Your task to perform on an android device: install app "Google Pay: Save, Pay, Manage" Image 0: 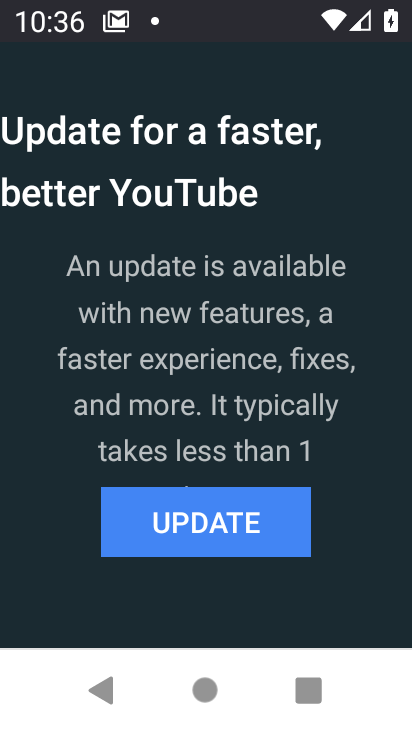
Step 0: press home button
Your task to perform on an android device: install app "Google Pay: Save, Pay, Manage" Image 1: 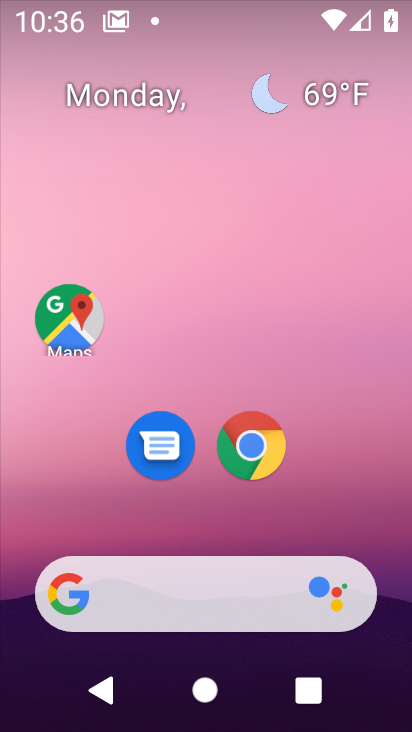
Step 1: drag from (182, 685) to (230, 143)
Your task to perform on an android device: install app "Google Pay: Save, Pay, Manage" Image 2: 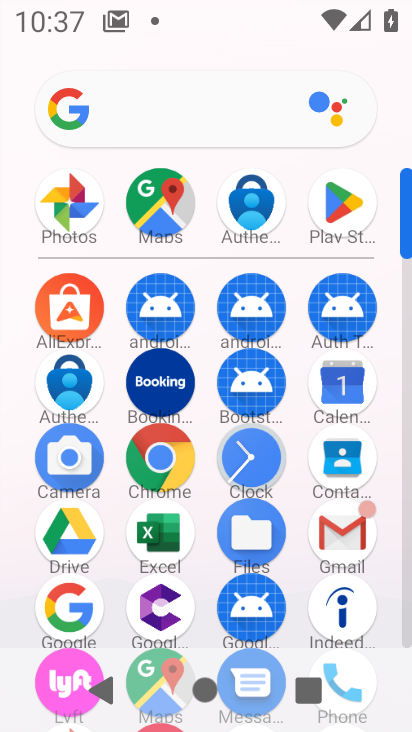
Step 2: click (364, 216)
Your task to perform on an android device: install app "Google Pay: Save, Pay, Manage" Image 3: 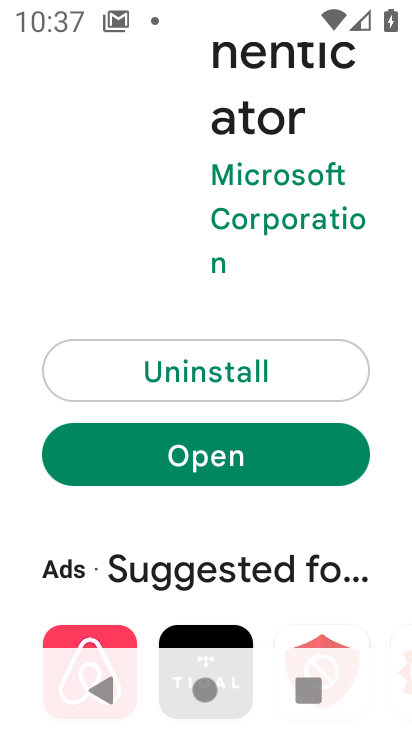
Step 3: drag from (203, 240) to (185, 667)
Your task to perform on an android device: install app "Google Pay: Save, Pay, Manage" Image 4: 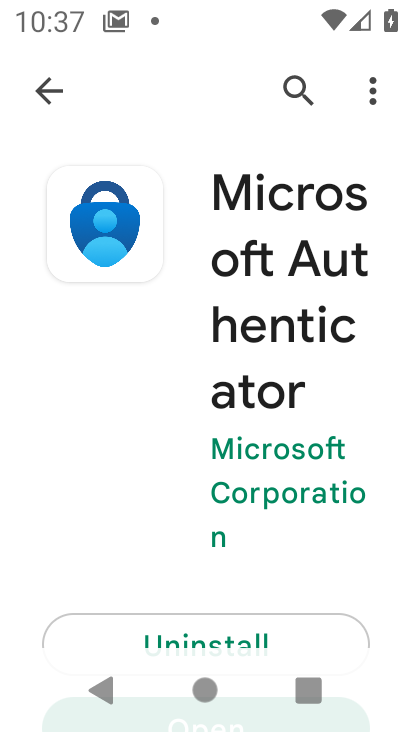
Step 4: click (54, 103)
Your task to perform on an android device: install app "Google Pay: Save, Pay, Manage" Image 5: 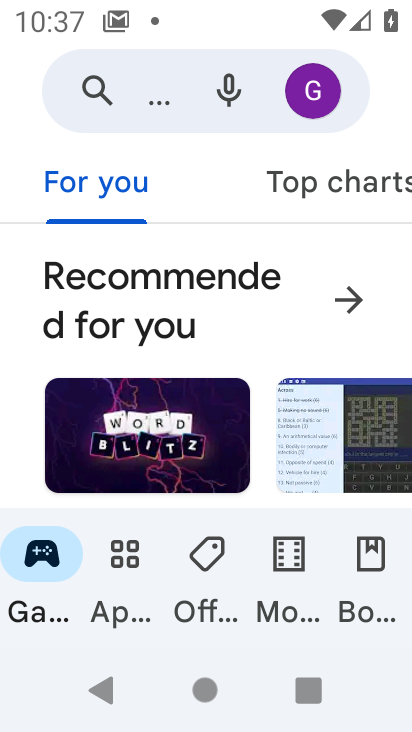
Step 5: click (92, 103)
Your task to perform on an android device: install app "Google Pay: Save, Pay, Manage" Image 6: 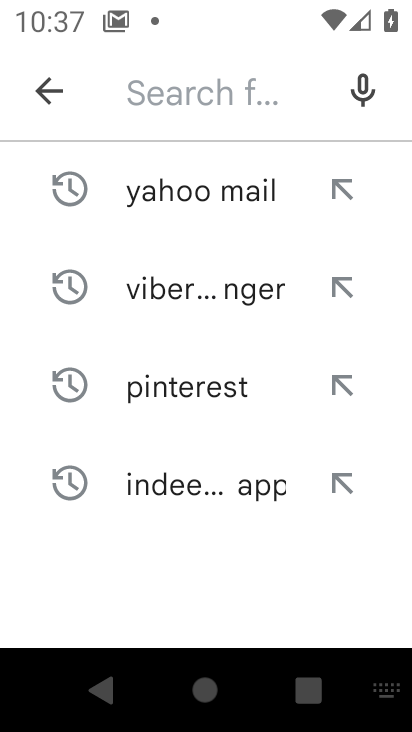
Step 6: type "Google Pay: Save, Pay, Manage"
Your task to perform on an android device: install app "Google Pay: Save, Pay, Manage" Image 7: 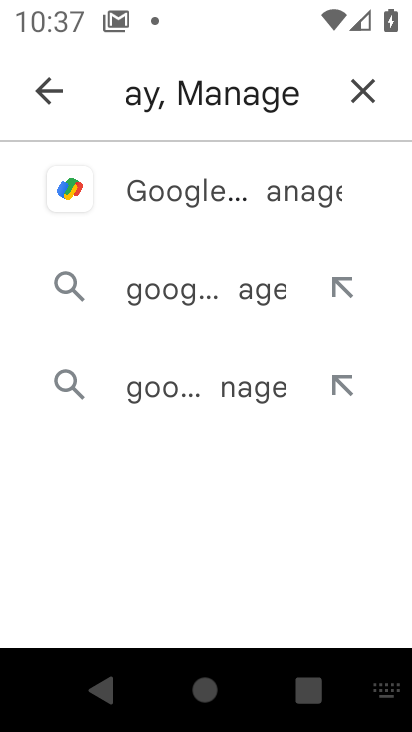
Step 7: click (242, 187)
Your task to perform on an android device: install app "Google Pay: Save, Pay, Manage" Image 8: 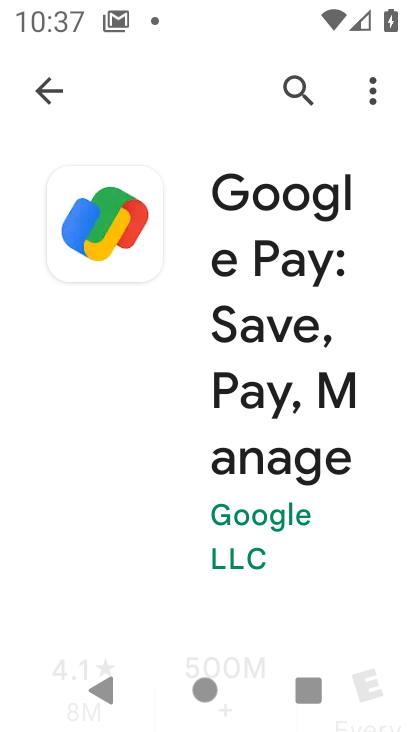
Step 8: drag from (241, 400) to (201, 69)
Your task to perform on an android device: install app "Google Pay: Save, Pay, Manage" Image 9: 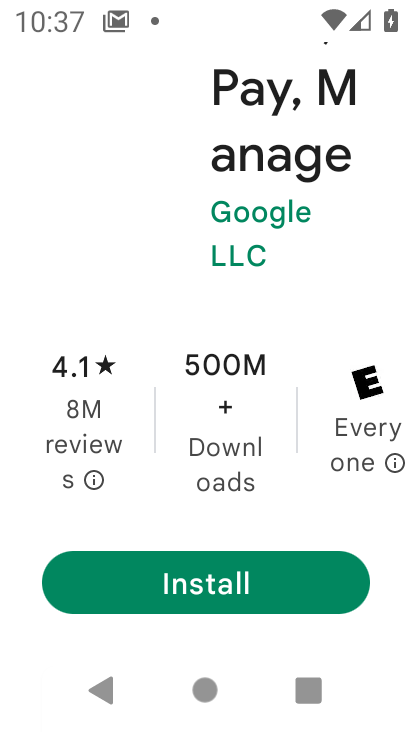
Step 9: click (240, 579)
Your task to perform on an android device: install app "Google Pay: Save, Pay, Manage" Image 10: 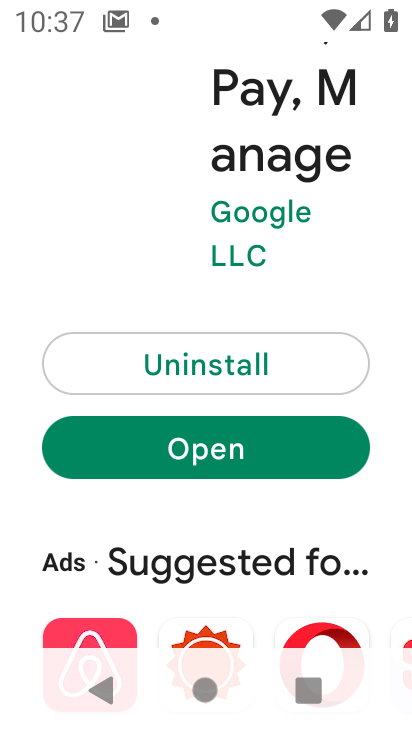
Step 10: task complete